Your task to perform on an android device: Go to battery settings Image 0: 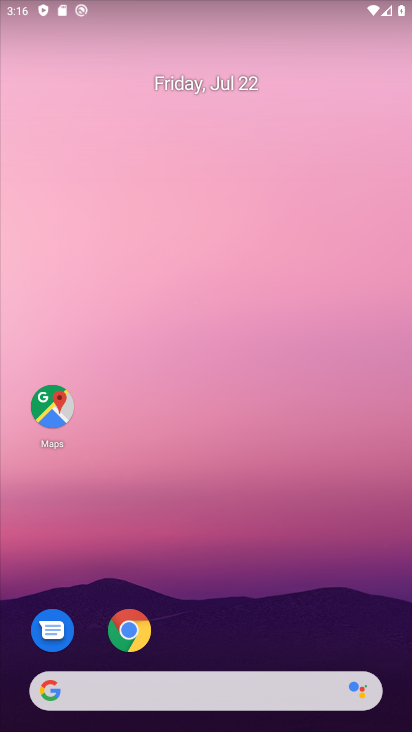
Step 0: drag from (250, 624) to (64, 18)
Your task to perform on an android device: Go to battery settings Image 1: 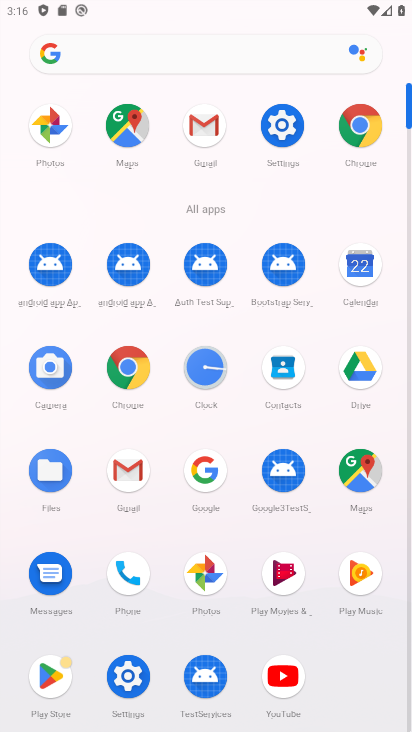
Step 1: click (139, 667)
Your task to perform on an android device: Go to battery settings Image 2: 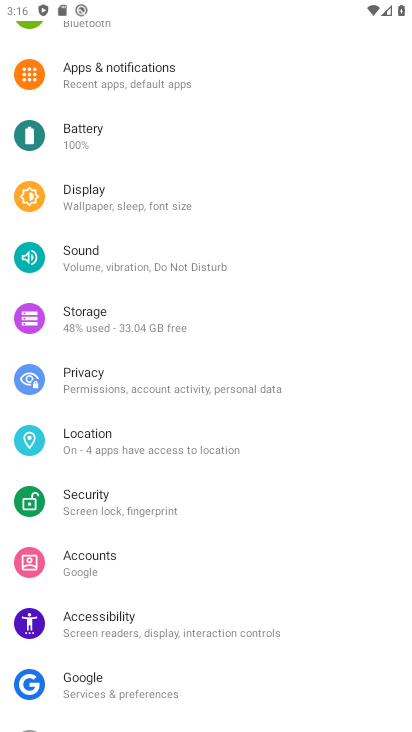
Step 2: click (94, 140)
Your task to perform on an android device: Go to battery settings Image 3: 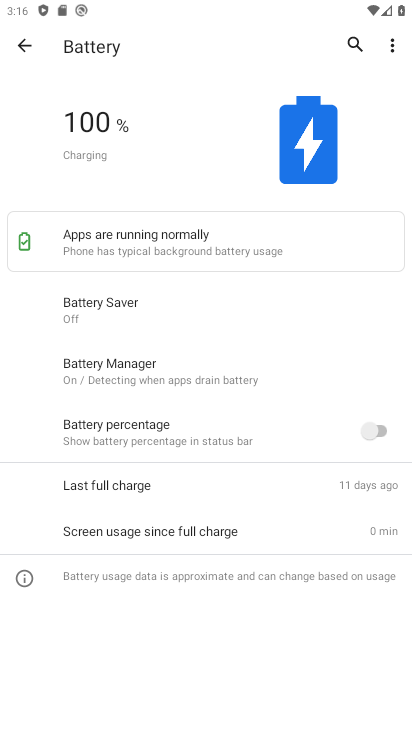
Step 3: task complete